Your task to perform on an android device: check google app version Image 0: 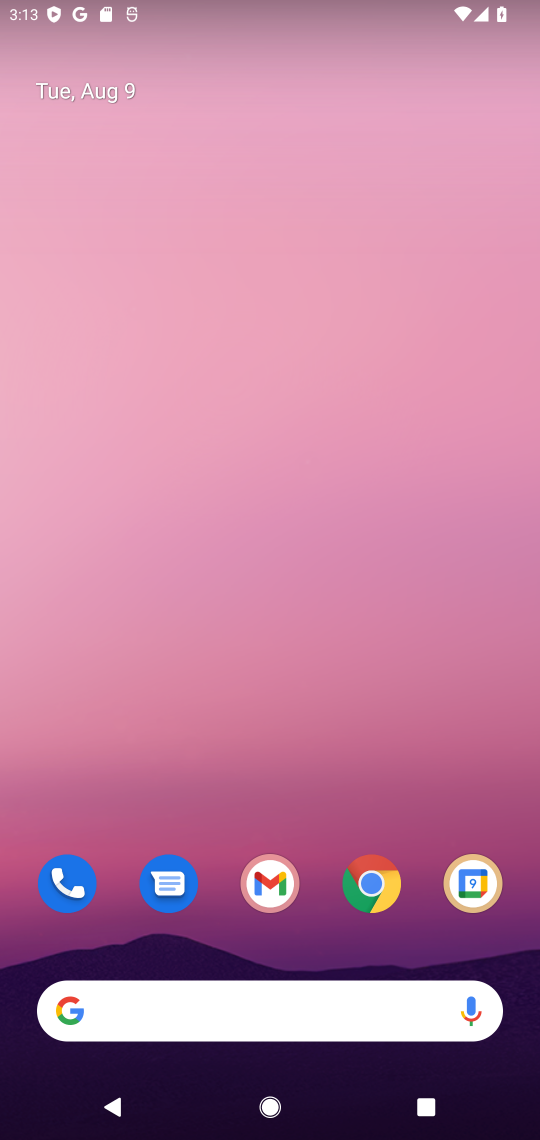
Step 0: click (373, 886)
Your task to perform on an android device: check google app version Image 1: 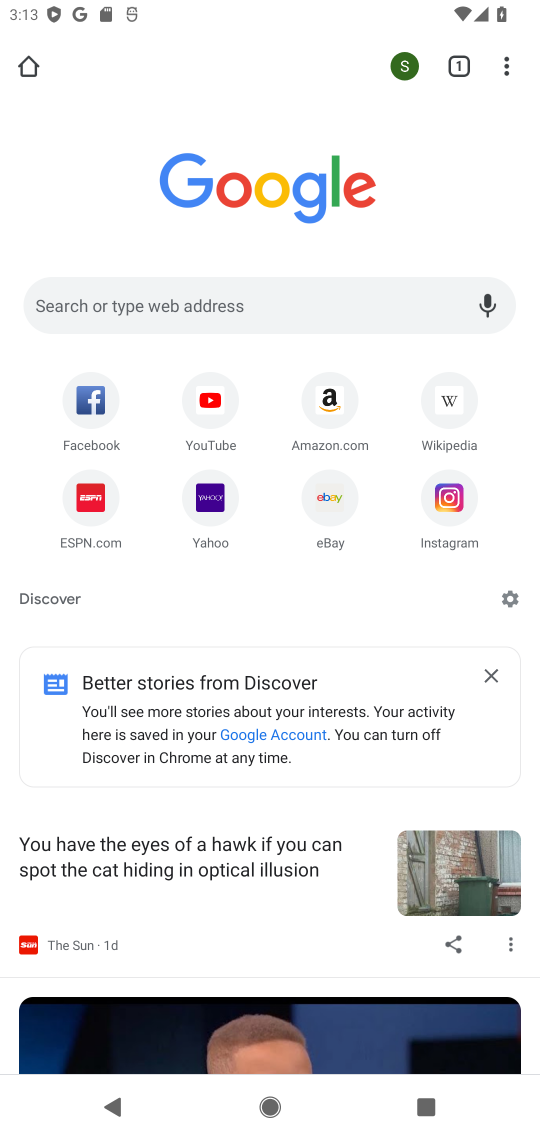
Step 1: click (500, 74)
Your task to perform on an android device: check google app version Image 2: 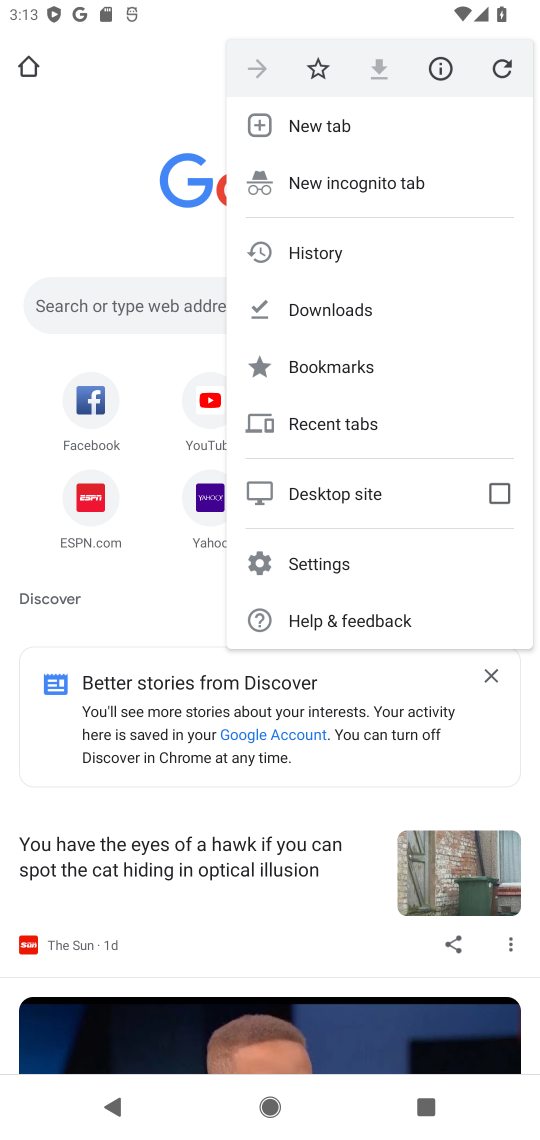
Step 2: click (309, 552)
Your task to perform on an android device: check google app version Image 3: 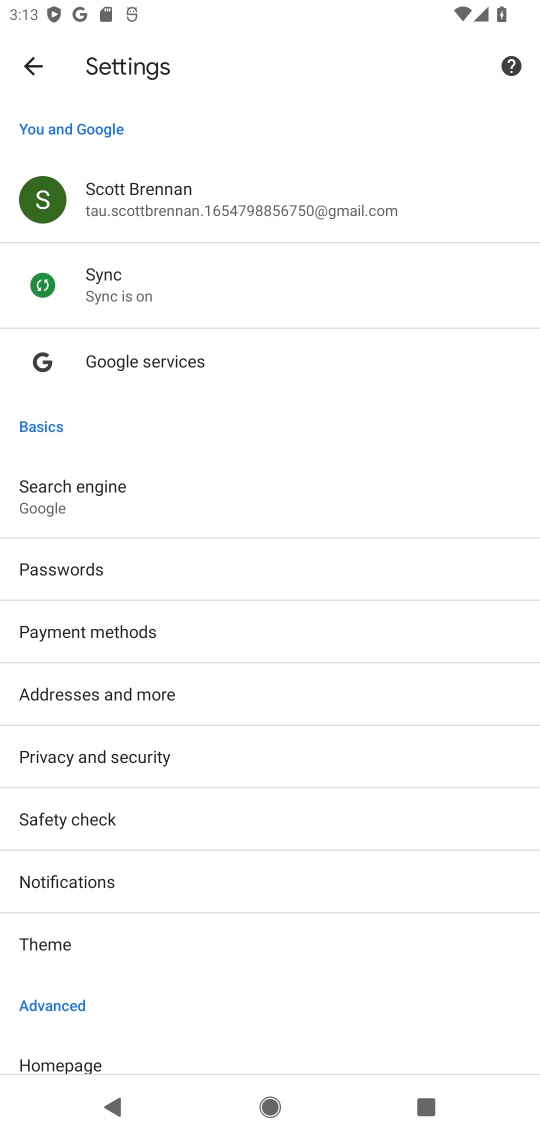
Step 3: drag from (237, 1012) to (263, 300)
Your task to perform on an android device: check google app version Image 4: 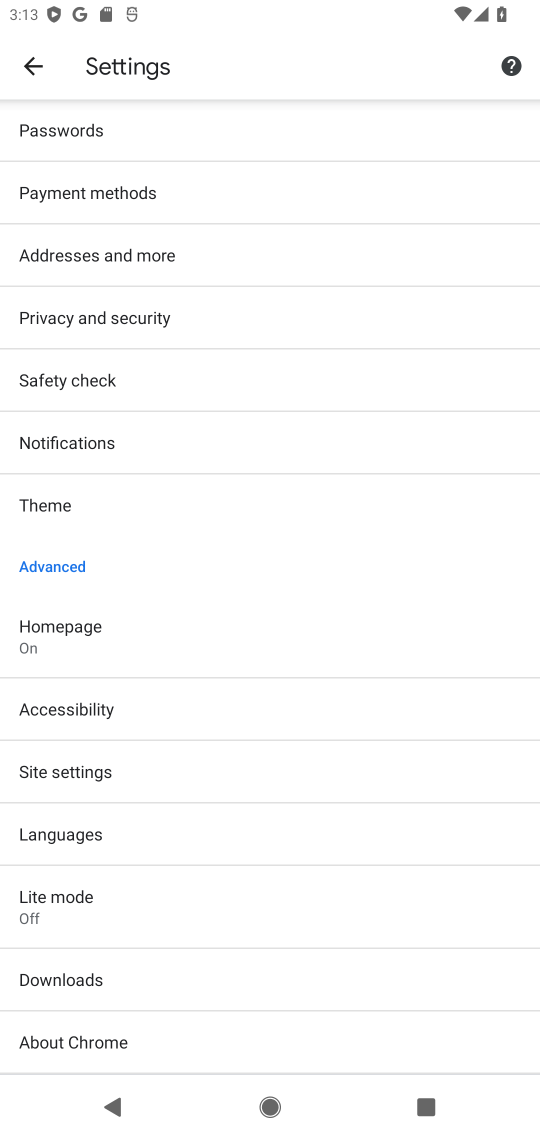
Step 4: click (87, 1038)
Your task to perform on an android device: check google app version Image 5: 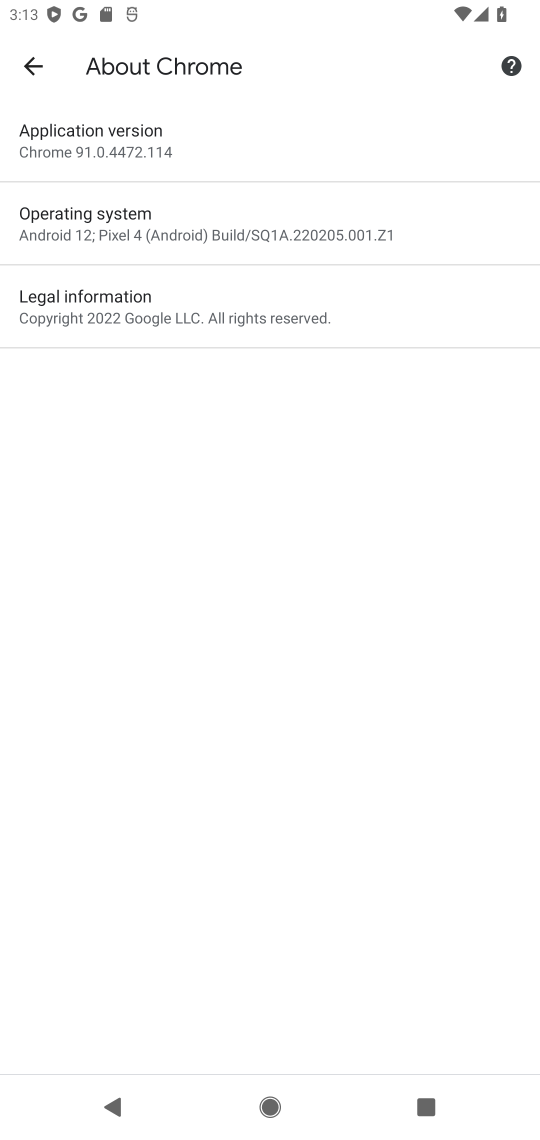
Step 5: click (126, 146)
Your task to perform on an android device: check google app version Image 6: 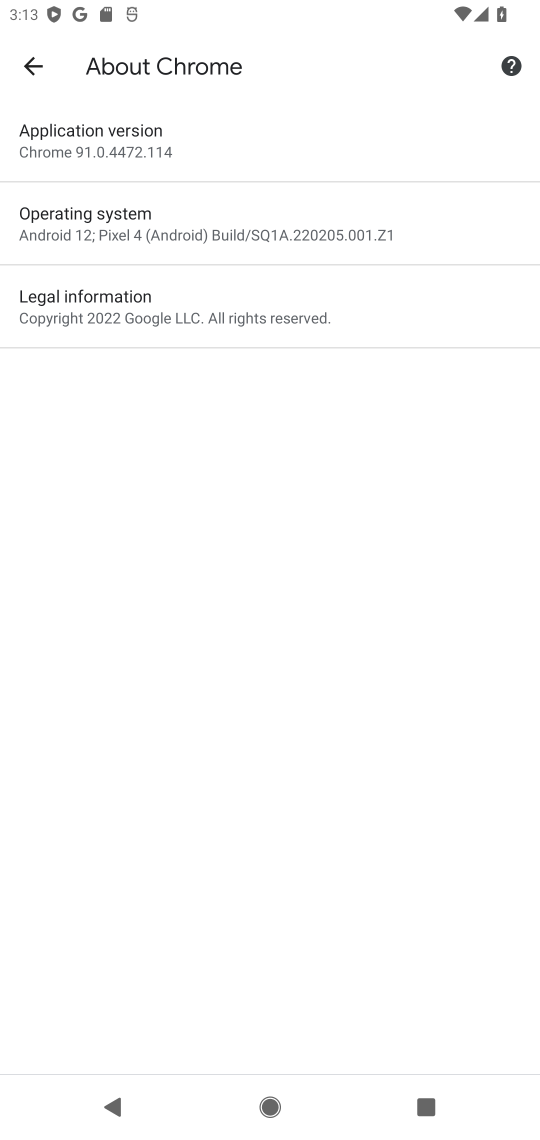
Step 6: task complete